Your task to perform on an android device: Open maps Image 0: 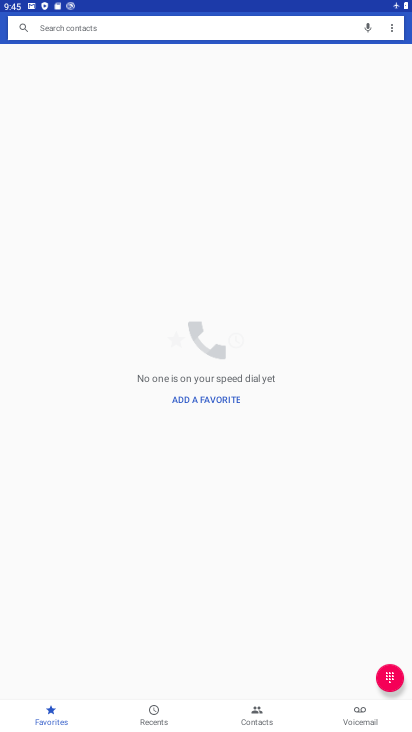
Step 0: press home button
Your task to perform on an android device: Open maps Image 1: 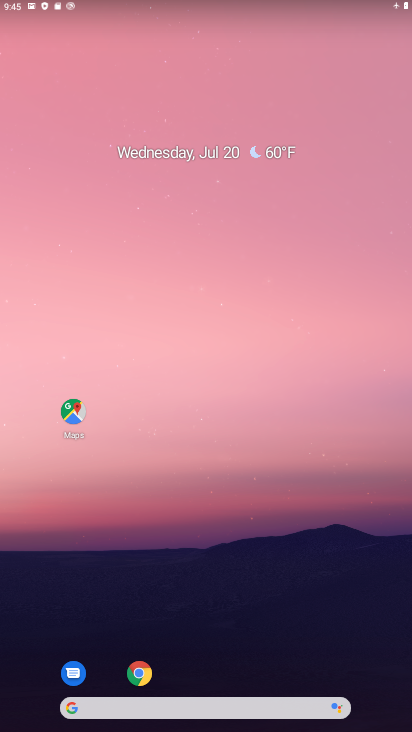
Step 1: click (79, 409)
Your task to perform on an android device: Open maps Image 2: 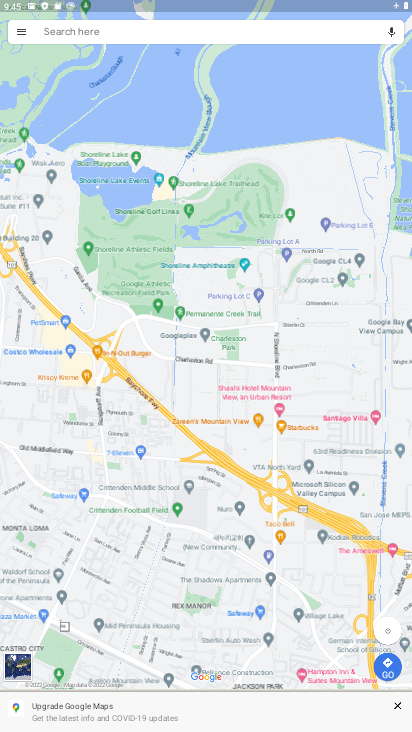
Step 2: task complete